Your task to perform on an android device: change text size in settings app Image 0: 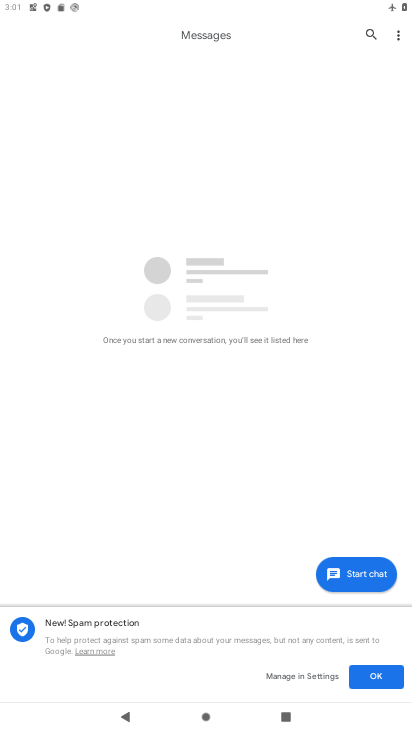
Step 0: press home button
Your task to perform on an android device: change text size in settings app Image 1: 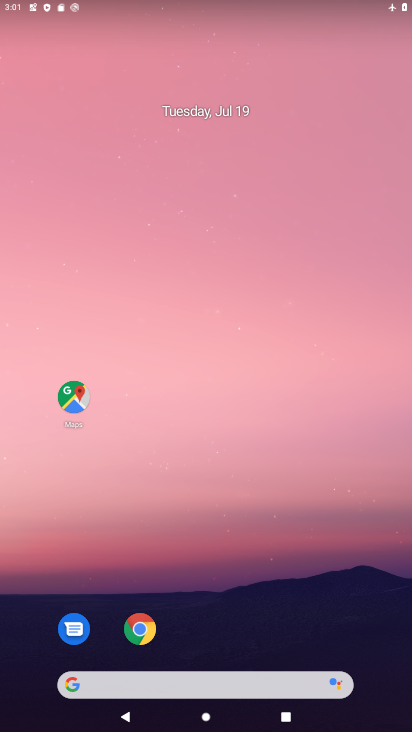
Step 1: drag from (217, 682) to (157, 94)
Your task to perform on an android device: change text size in settings app Image 2: 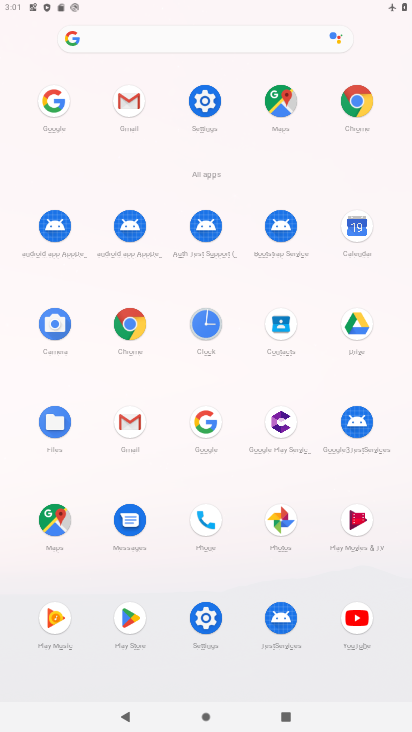
Step 2: click (197, 106)
Your task to perform on an android device: change text size in settings app Image 3: 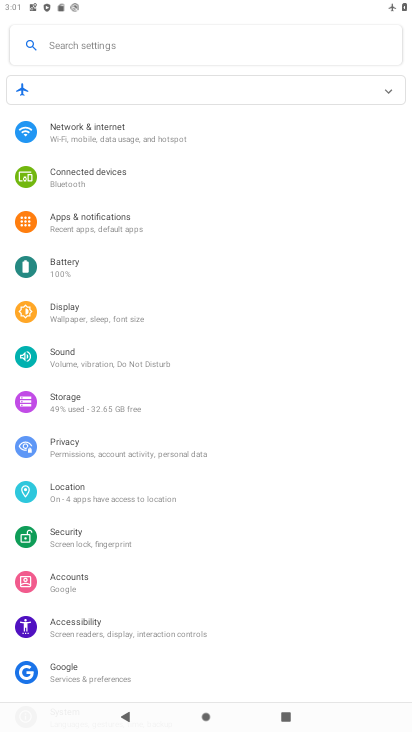
Step 3: click (80, 311)
Your task to perform on an android device: change text size in settings app Image 4: 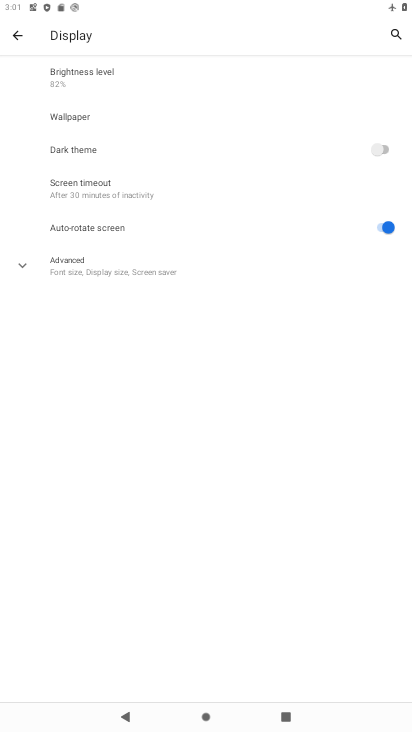
Step 4: click (92, 273)
Your task to perform on an android device: change text size in settings app Image 5: 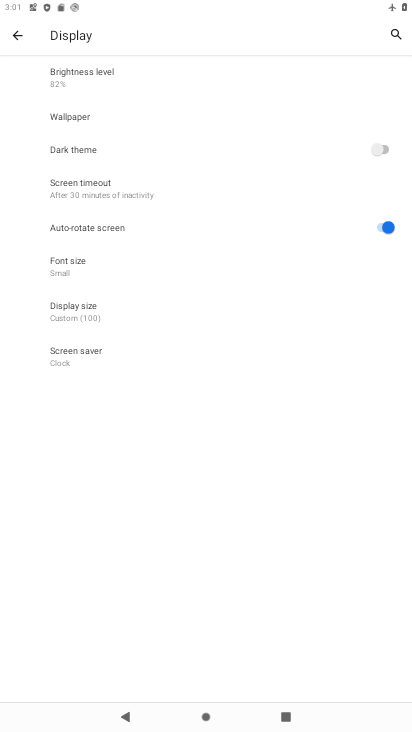
Step 5: click (91, 271)
Your task to perform on an android device: change text size in settings app Image 6: 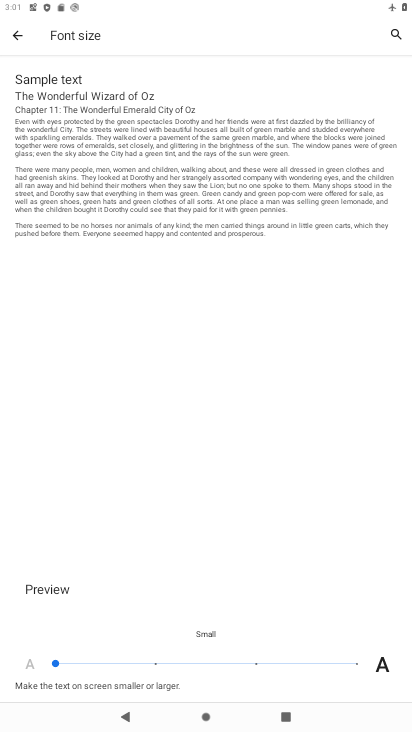
Step 6: click (352, 667)
Your task to perform on an android device: change text size in settings app Image 7: 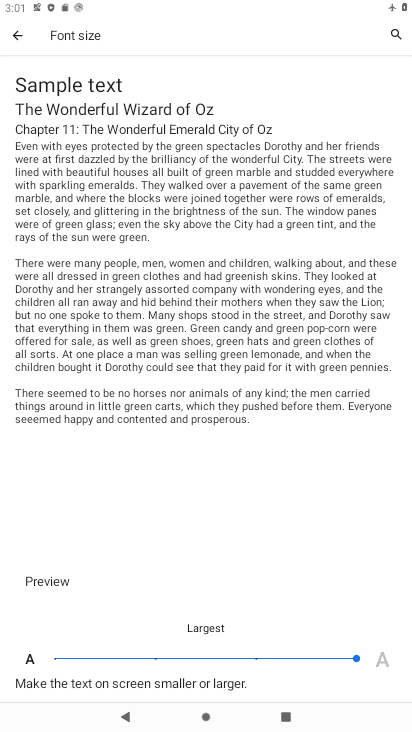
Step 7: task complete